Your task to perform on an android device: Go to CNN.com Image 0: 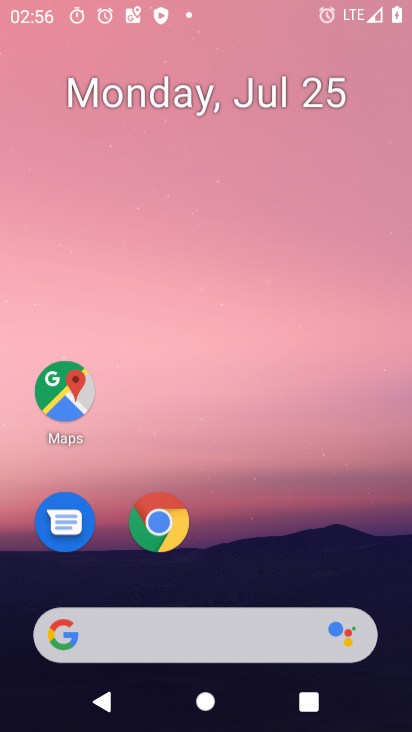
Step 0: press home button
Your task to perform on an android device: Go to CNN.com Image 1: 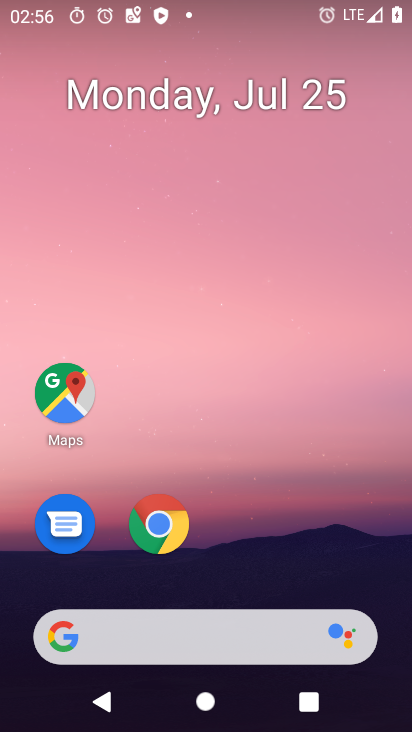
Step 1: click (60, 644)
Your task to perform on an android device: Go to CNN.com Image 2: 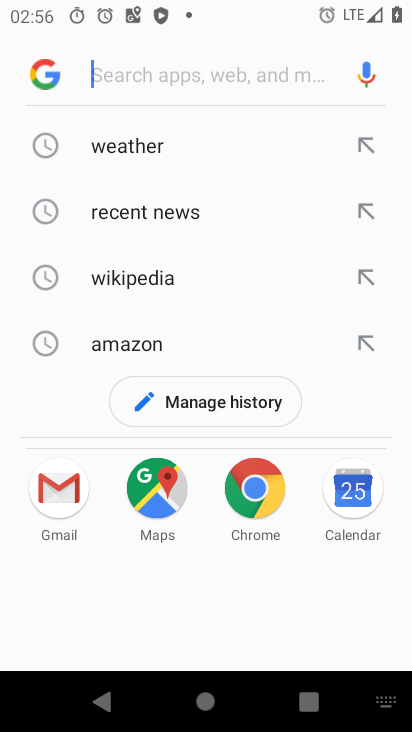
Step 2: type "CNN.com"
Your task to perform on an android device: Go to CNN.com Image 3: 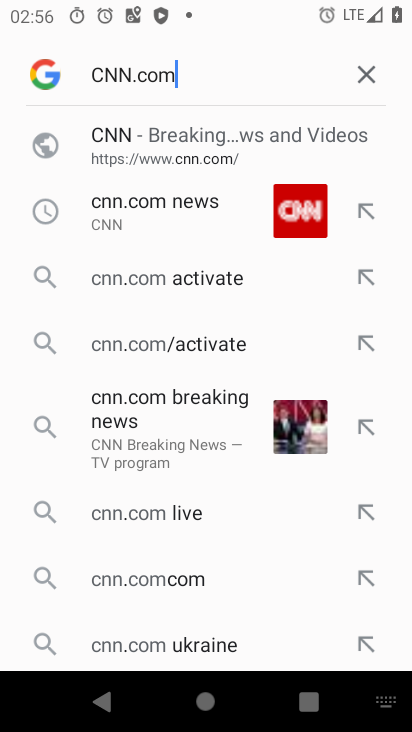
Step 3: press enter
Your task to perform on an android device: Go to CNN.com Image 4: 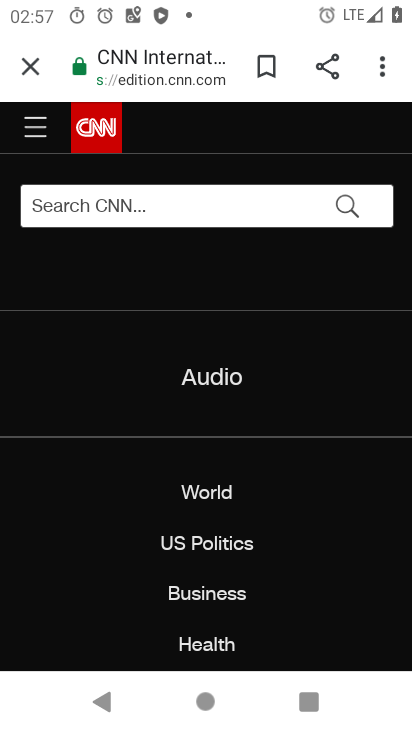
Step 4: task complete